Your task to perform on an android device: Open Chrome and go to settings Image 0: 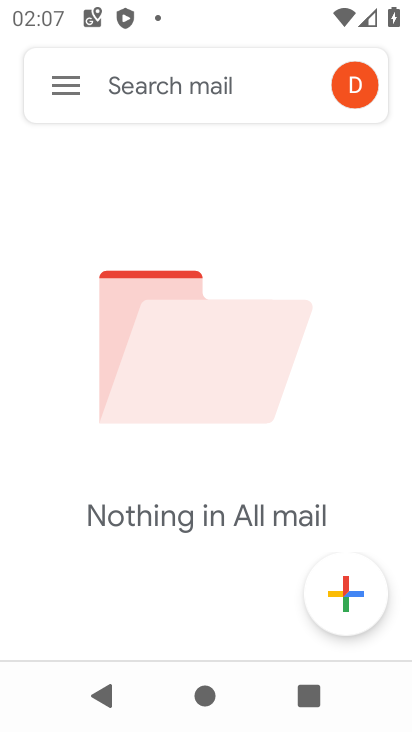
Step 0: press home button
Your task to perform on an android device: Open Chrome and go to settings Image 1: 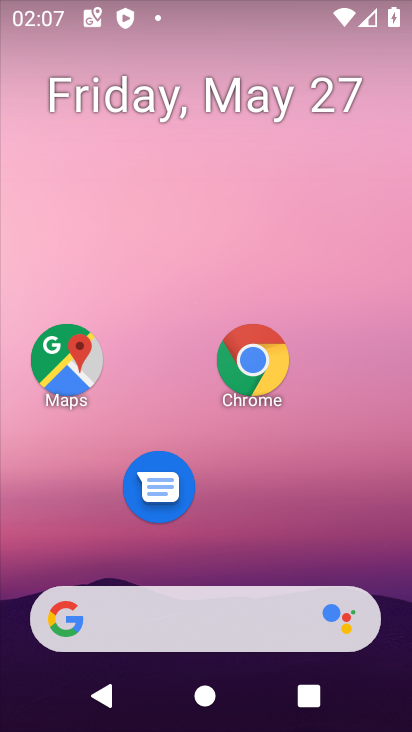
Step 1: click (259, 356)
Your task to perform on an android device: Open Chrome and go to settings Image 2: 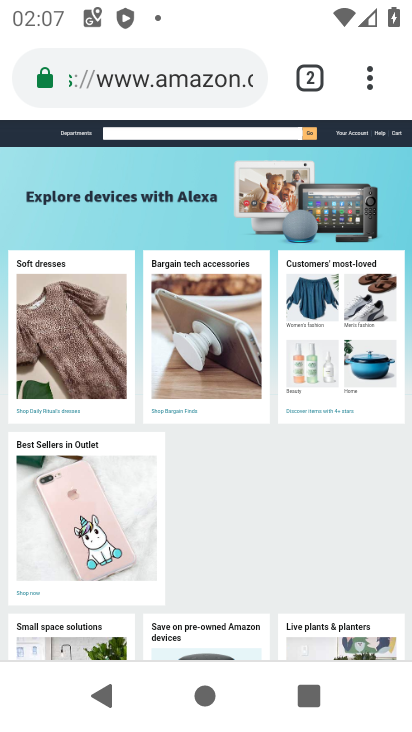
Step 2: click (357, 80)
Your task to perform on an android device: Open Chrome and go to settings Image 3: 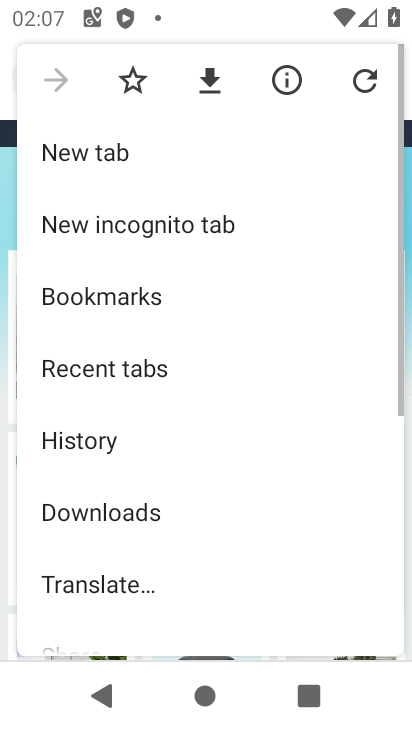
Step 3: drag from (184, 581) to (234, 173)
Your task to perform on an android device: Open Chrome and go to settings Image 4: 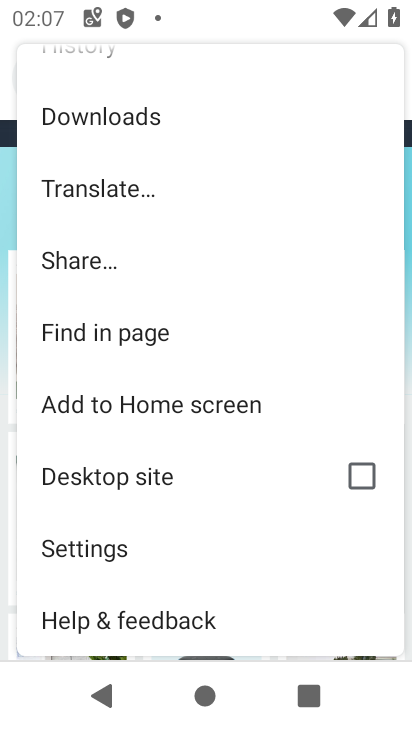
Step 4: click (94, 549)
Your task to perform on an android device: Open Chrome and go to settings Image 5: 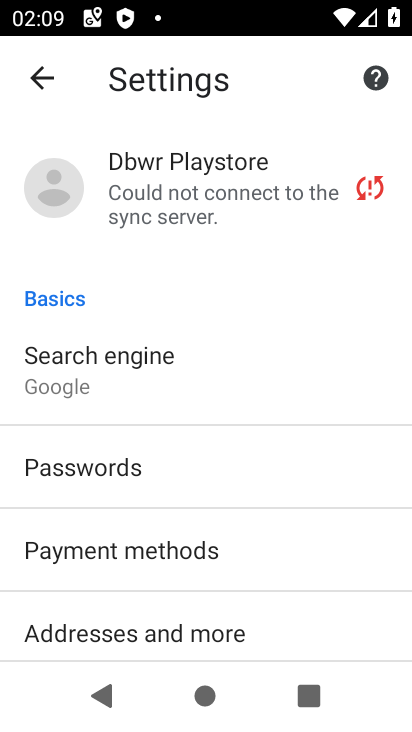
Step 5: task complete